Your task to perform on an android device: choose inbox layout in the gmail app Image 0: 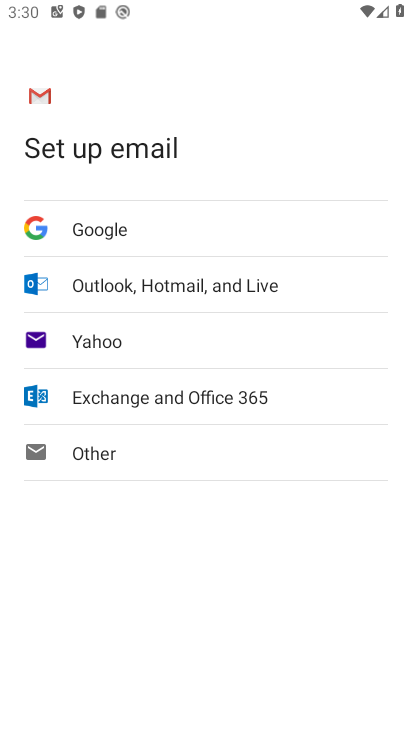
Step 0: press home button
Your task to perform on an android device: choose inbox layout in the gmail app Image 1: 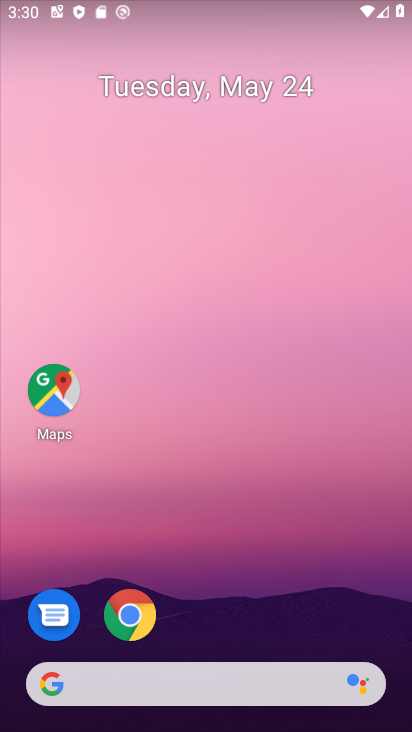
Step 1: drag from (195, 728) to (203, 9)
Your task to perform on an android device: choose inbox layout in the gmail app Image 2: 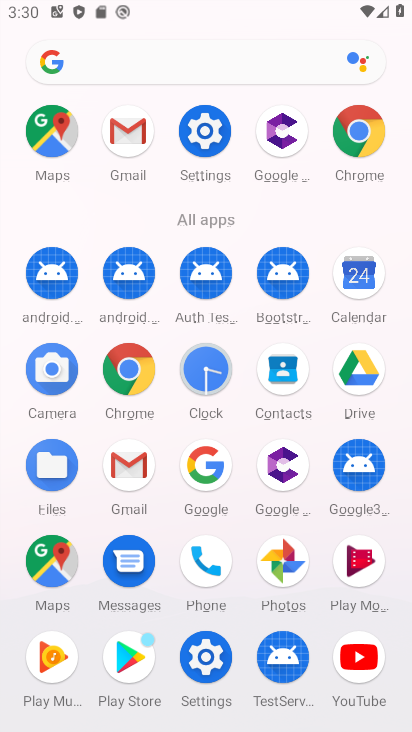
Step 2: click (126, 476)
Your task to perform on an android device: choose inbox layout in the gmail app Image 3: 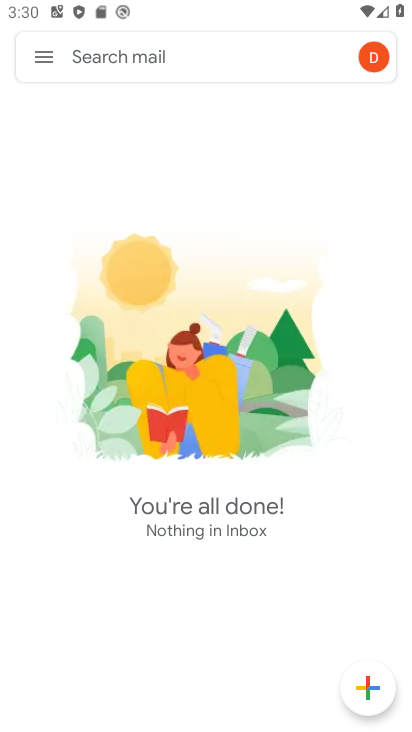
Step 3: click (44, 56)
Your task to perform on an android device: choose inbox layout in the gmail app Image 4: 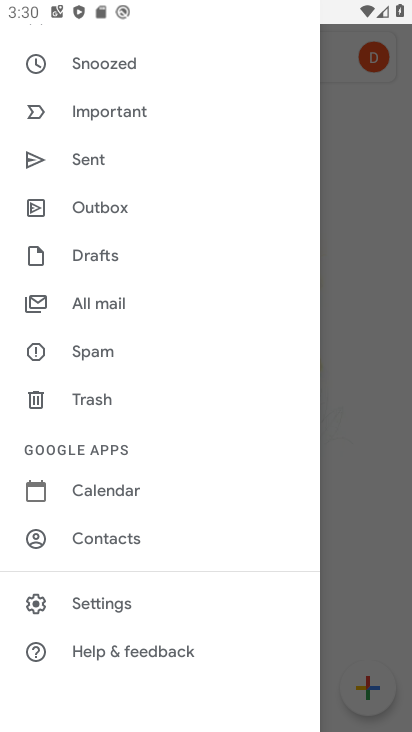
Step 4: click (113, 604)
Your task to perform on an android device: choose inbox layout in the gmail app Image 5: 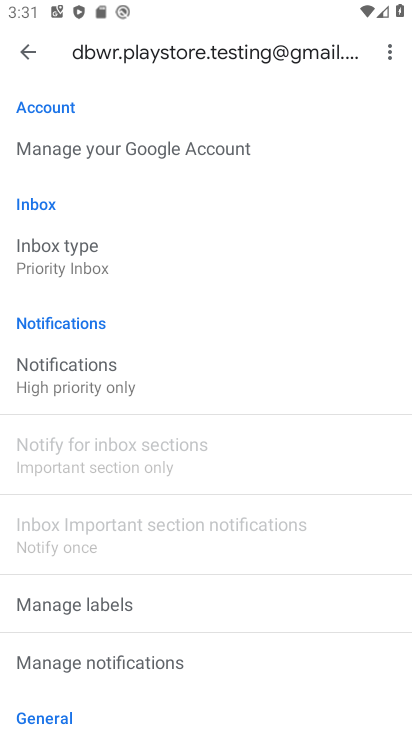
Step 5: click (82, 257)
Your task to perform on an android device: choose inbox layout in the gmail app Image 6: 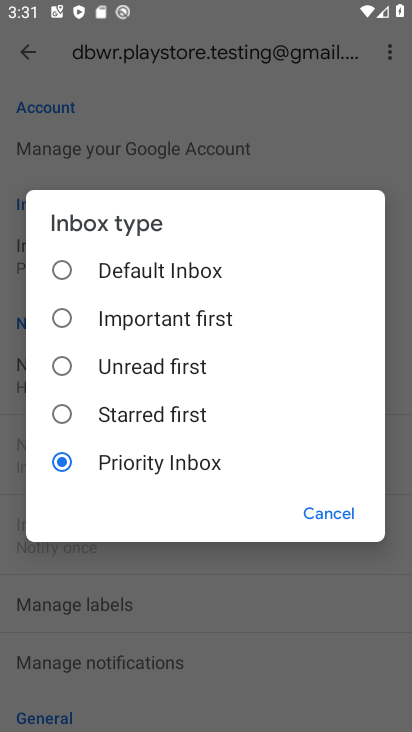
Step 6: click (60, 269)
Your task to perform on an android device: choose inbox layout in the gmail app Image 7: 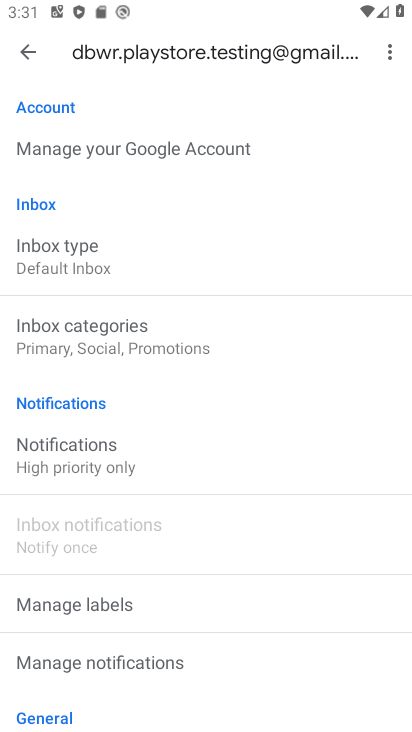
Step 7: task complete